Your task to perform on an android device: Go to location settings Image 0: 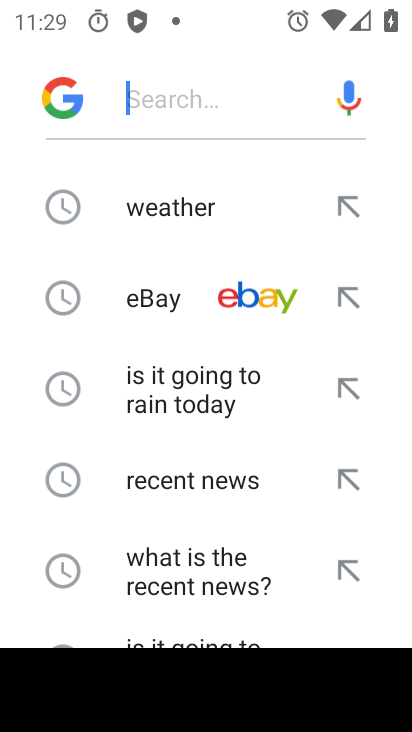
Step 0: press back button
Your task to perform on an android device: Go to location settings Image 1: 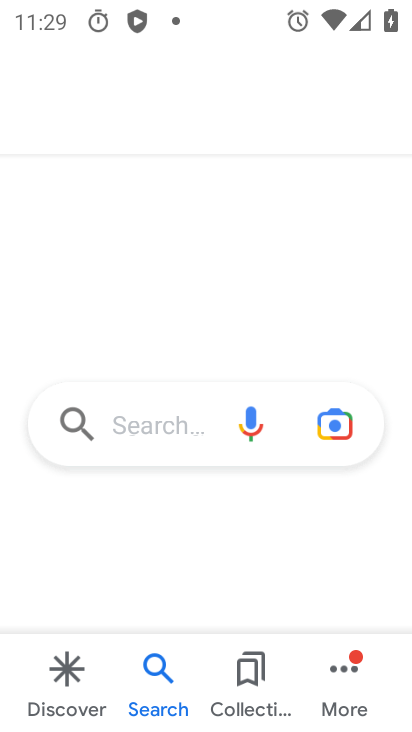
Step 1: press home button
Your task to perform on an android device: Go to location settings Image 2: 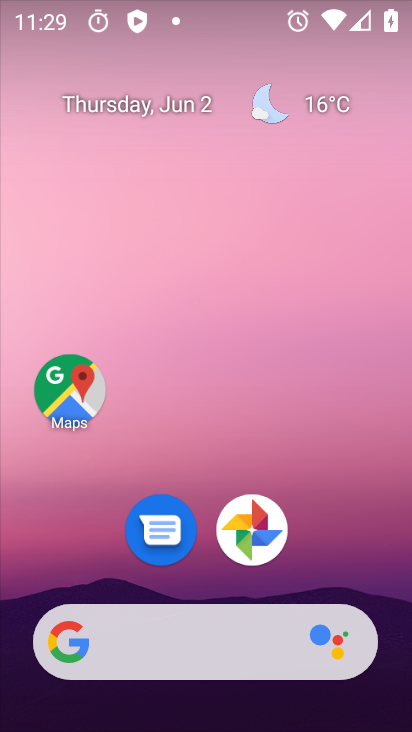
Step 2: drag from (243, 710) to (202, 143)
Your task to perform on an android device: Go to location settings Image 3: 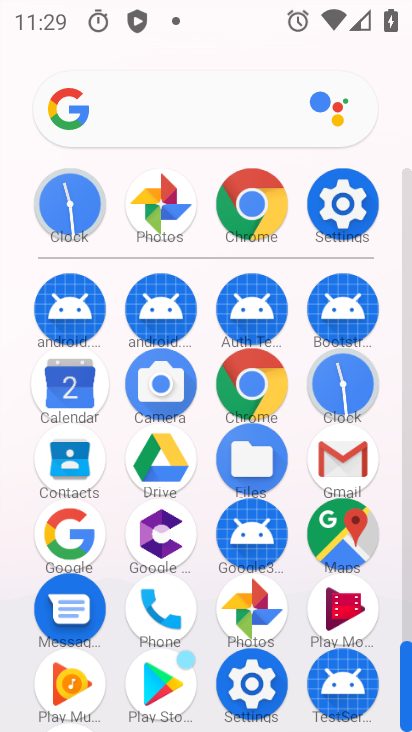
Step 3: click (350, 194)
Your task to perform on an android device: Go to location settings Image 4: 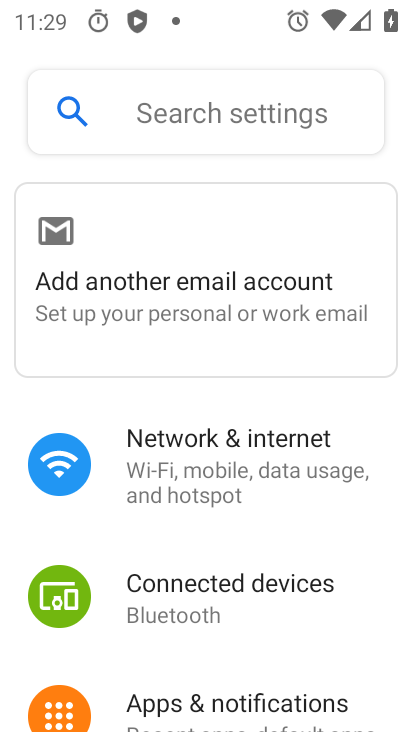
Step 4: drag from (296, 545) to (212, 270)
Your task to perform on an android device: Go to location settings Image 5: 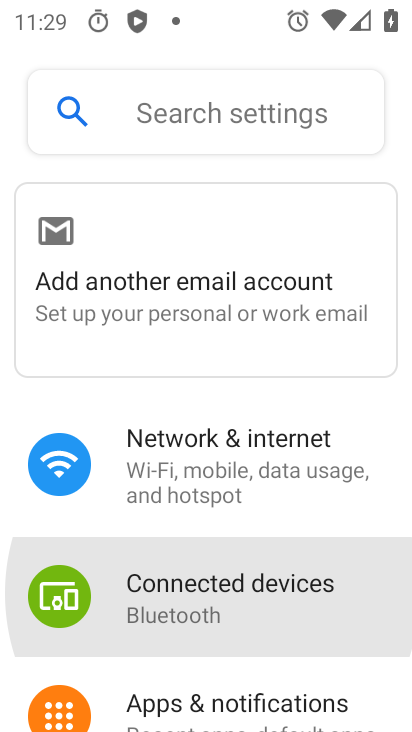
Step 5: drag from (280, 549) to (209, 206)
Your task to perform on an android device: Go to location settings Image 6: 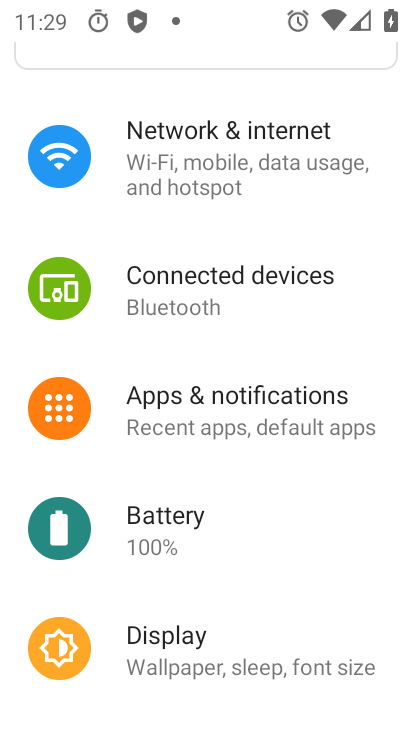
Step 6: drag from (255, 595) to (238, 332)
Your task to perform on an android device: Go to location settings Image 7: 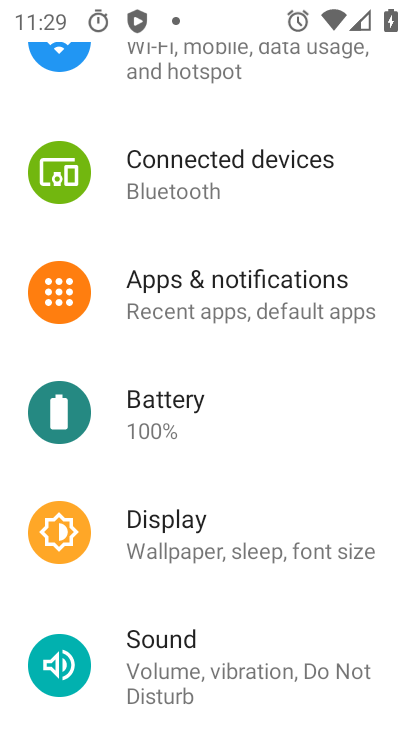
Step 7: drag from (278, 517) to (257, 268)
Your task to perform on an android device: Go to location settings Image 8: 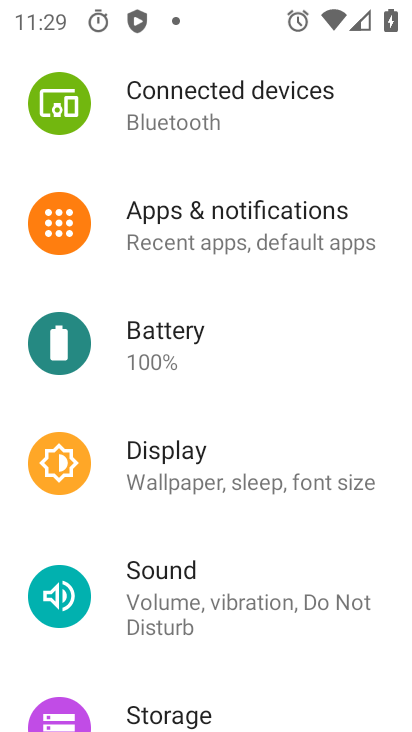
Step 8: drag from (199, 576) to (139, 164)
Your task to perform on an android device: Go to location settings Image 9: 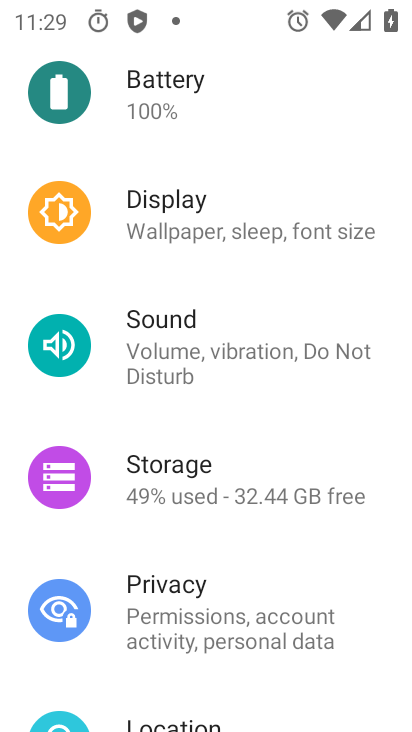
Step 9: drag from (208, 490) to (252, 153)
Your task to perform on an android device: Go to location settings Image 10: 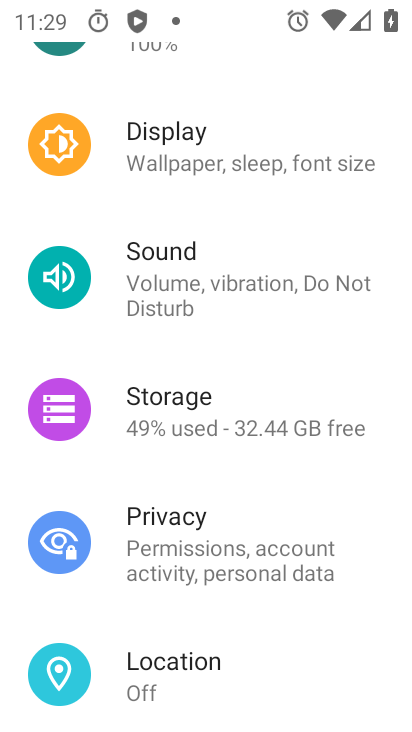
Step 10: drag from (255, 381) to (245, 183)
Your task to perform on an android device: Go to location settings Image 11: 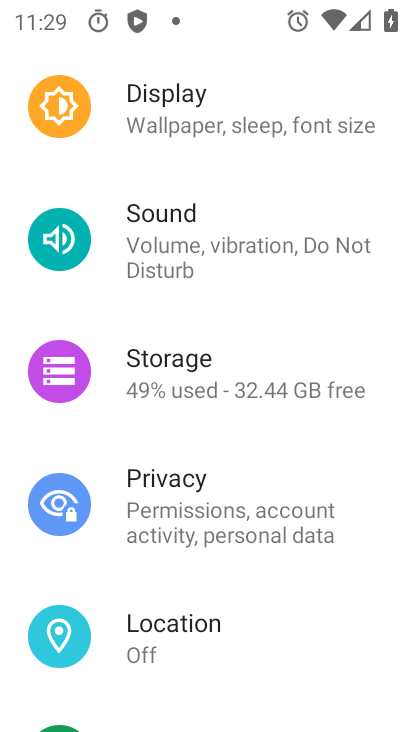
Step 11: click (169, 644)
Your task to perform on an android device: Go to location settings Image 12: 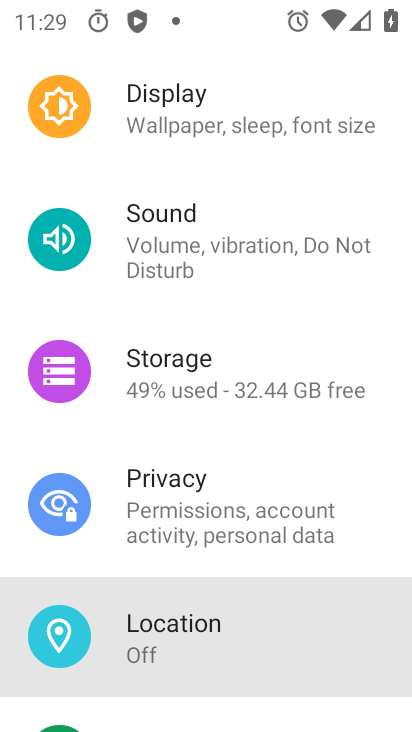
Step 12: click (167, 642)
Your task to perform on an android device: Go to location settings Image 13: 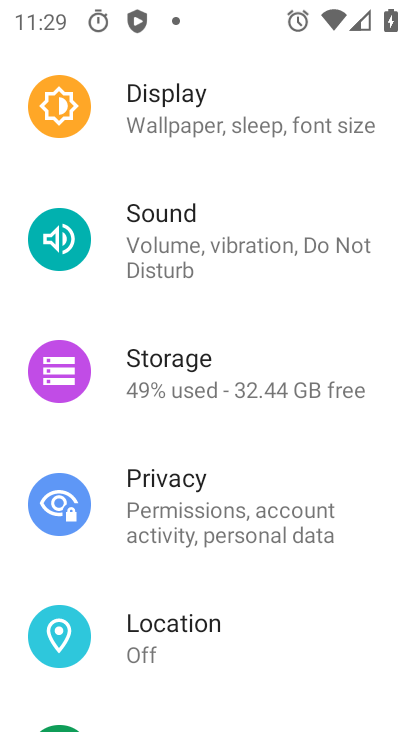
Step 13: click (168, 641)
Your task to perform on an android device: Go to location settings Image 14: 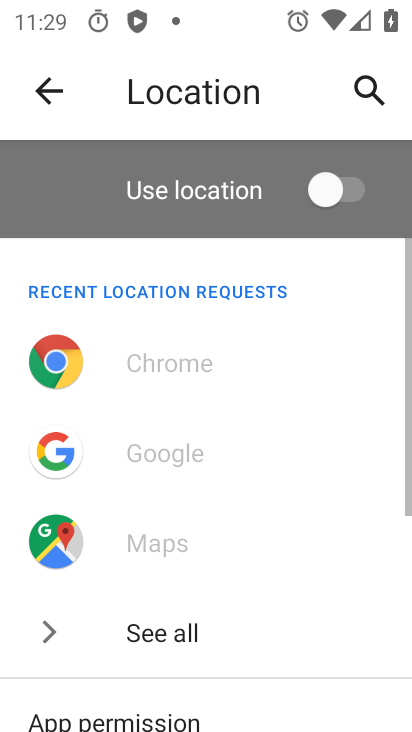
Step 14: drag from (222, 461) to (175, 187)
Your task to perform on an android device: Go to location settings Image 15: 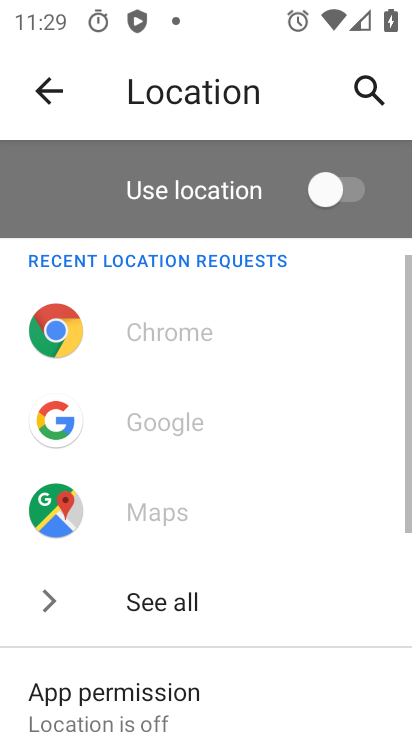
Step 15: drag from (245, 453) to (226, 153)
Your task to perform on an android device: Go to location settings Image 16: 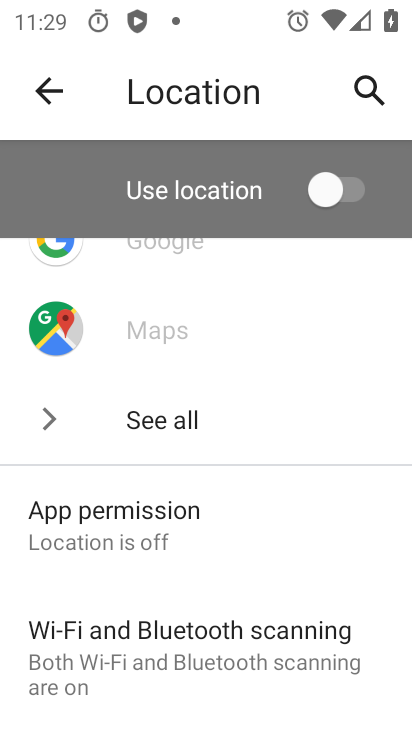
Step 16: click (115, 527)
Your task to perform on an android device: Go to location settings Image 17: 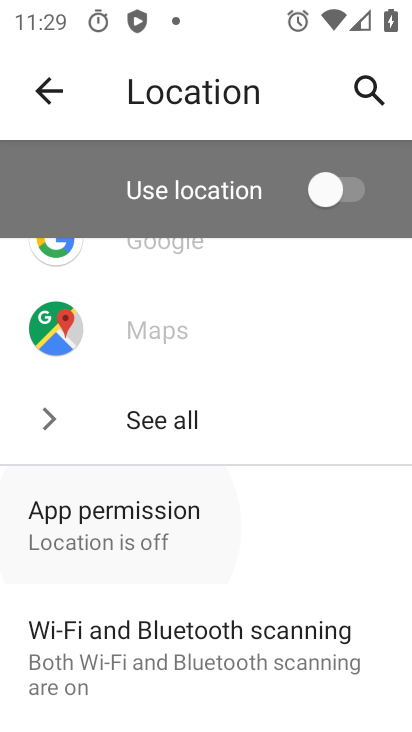
Step 17: click (114, 526)
Your task to perform on an android device: Go to location settings Image 18: 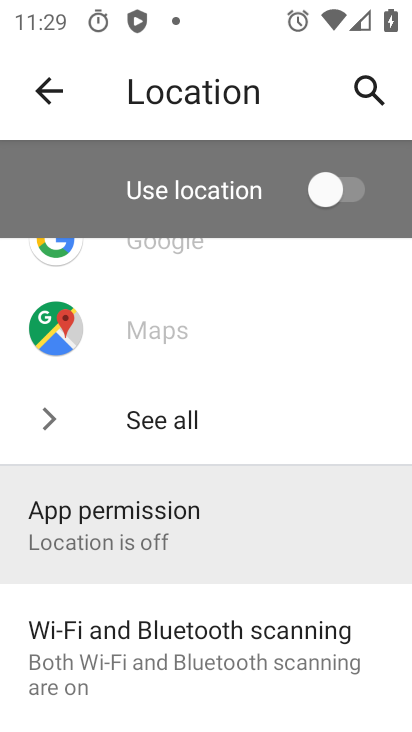
Step 18: click (115, 525)
Your task to perform on an android device: Go to location settings Image 19: 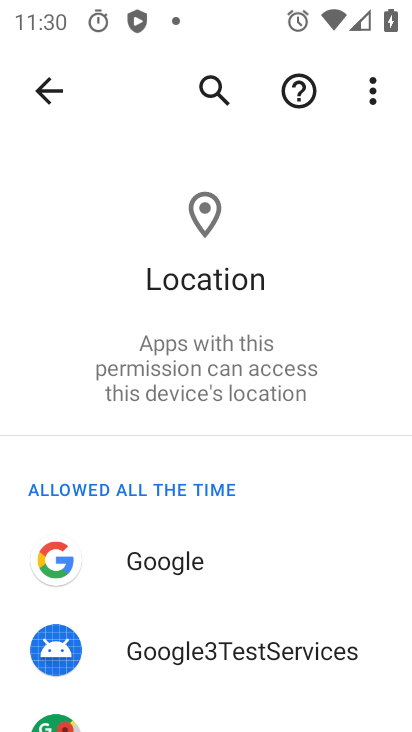
Step 19: drag from (220, 495) to (222, 190)
Your task to perform on an android device: Go to location settings Image 20: 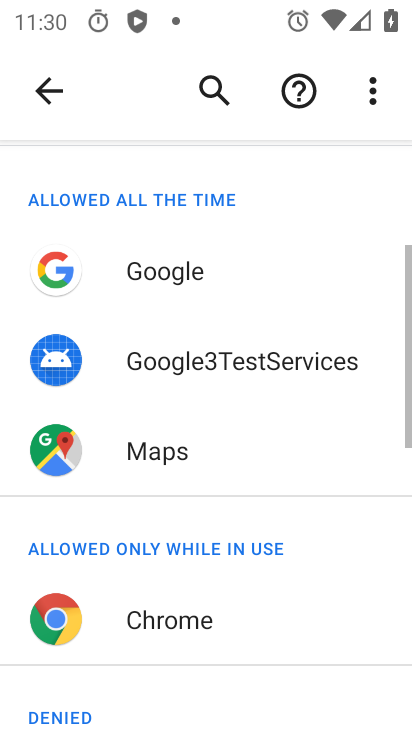
Step 20: drag from (256, 488) to (256, 217)
Your task to perform on an android device: Go to location settings Image 21: 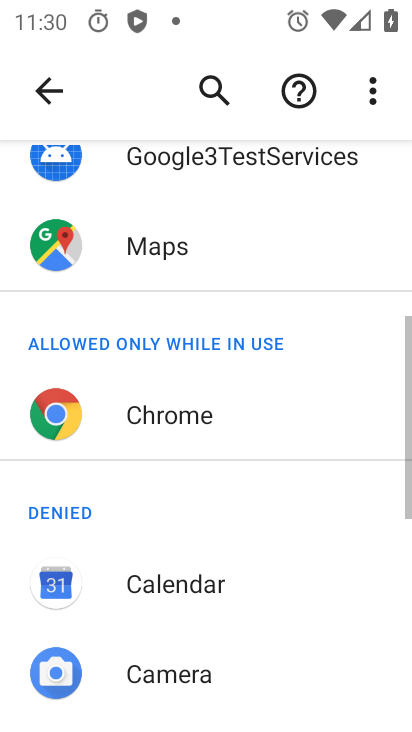
Step 21: drag from (254, 368) to (242, 234)
Your task to perform on an android device: Go to location settings Image 22: 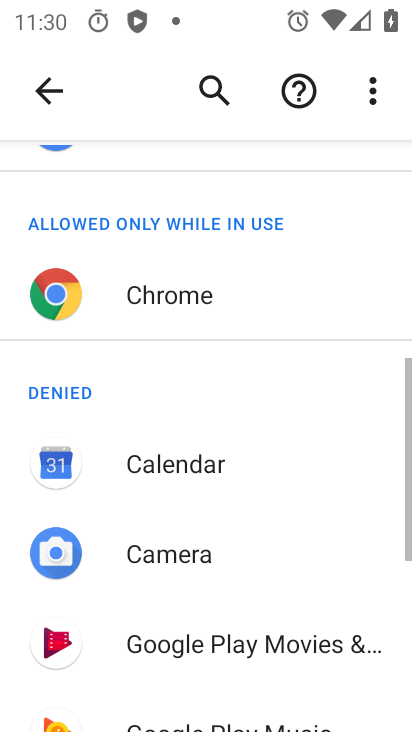
Step 22: drag from (226, 462) to (225, 269)
Your task to perform on an android device: Go to location settings Image 23: 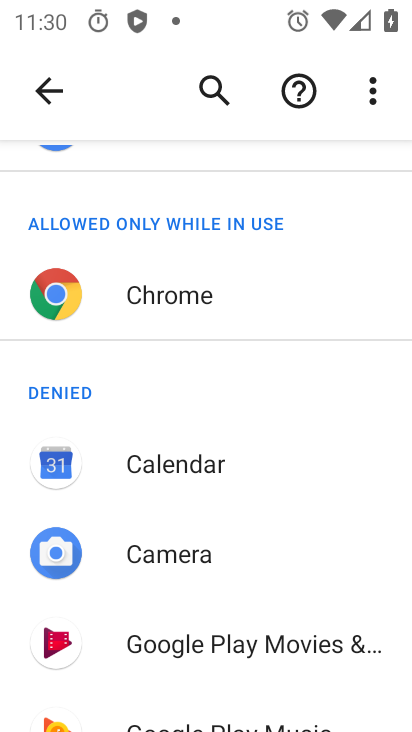
Step 23: click (38, 89)
Your task to perform on an android device: Go to location settings Image 24: 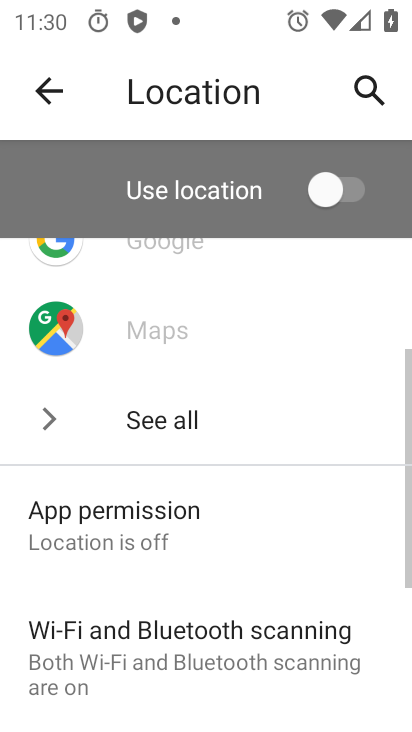
Step 24: task complete